Your task to perform on an android device: Go to sound settings Image 0: 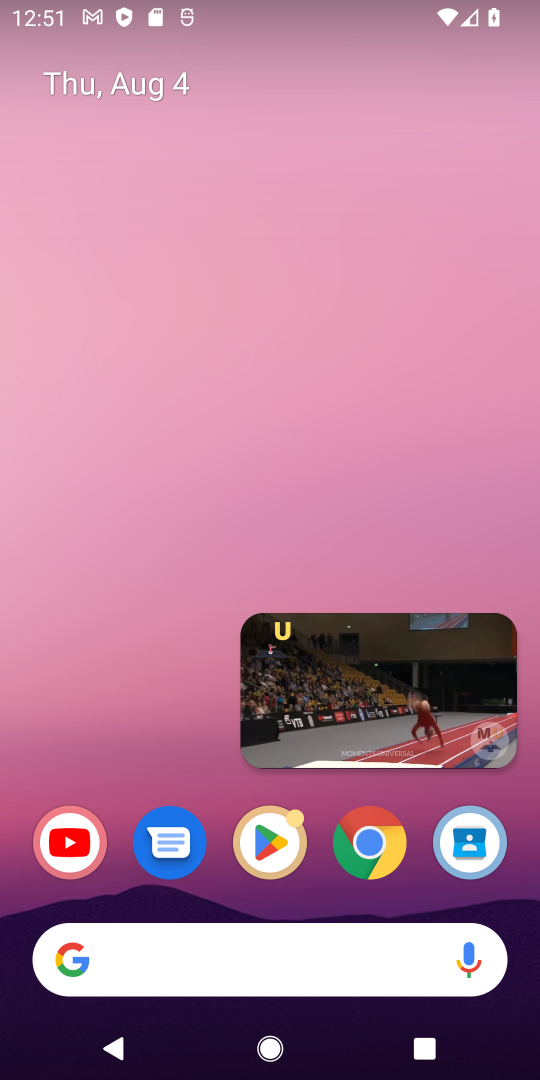
Step 0: drag from (89, 720) to (67, 292)
Your task to perform on an android device: Go to sound settings Image 1: 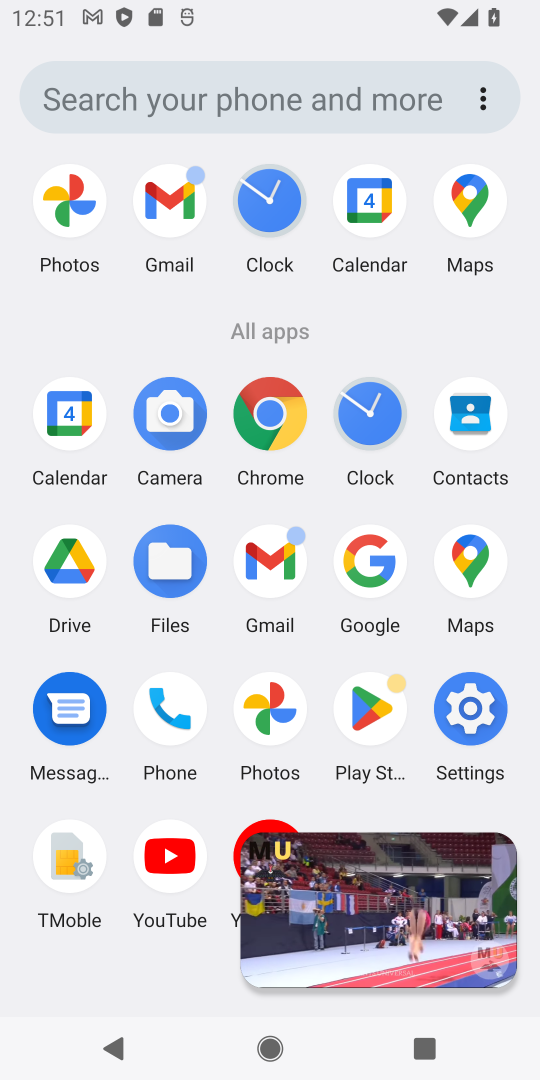
Step 1: click (474, 714)
Your task to perform on an android device: Go to sound settings Image 2: 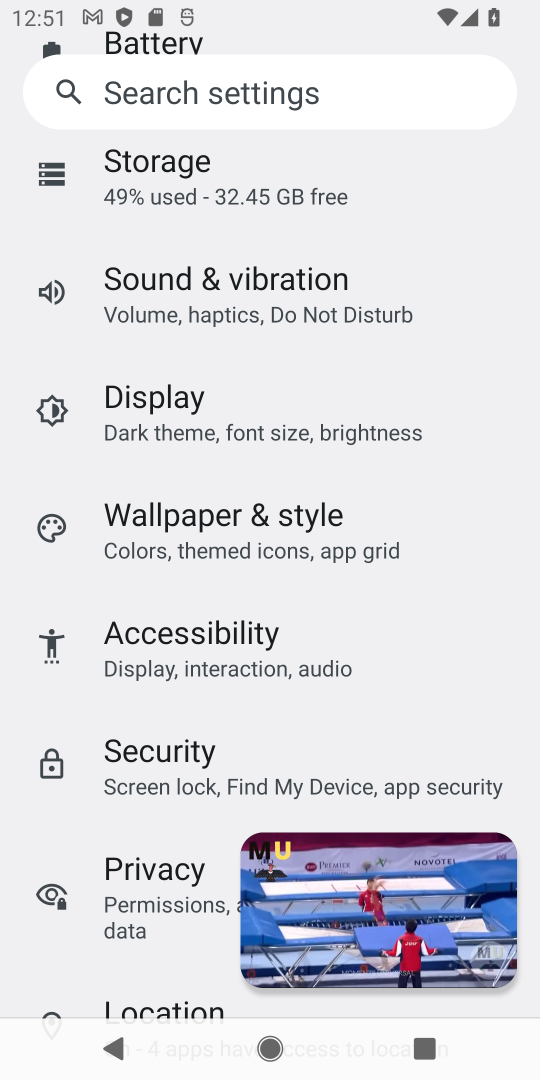
Step 2: click (164, 318)
Your task to perform on an android device: Go to sound settings Image 3: 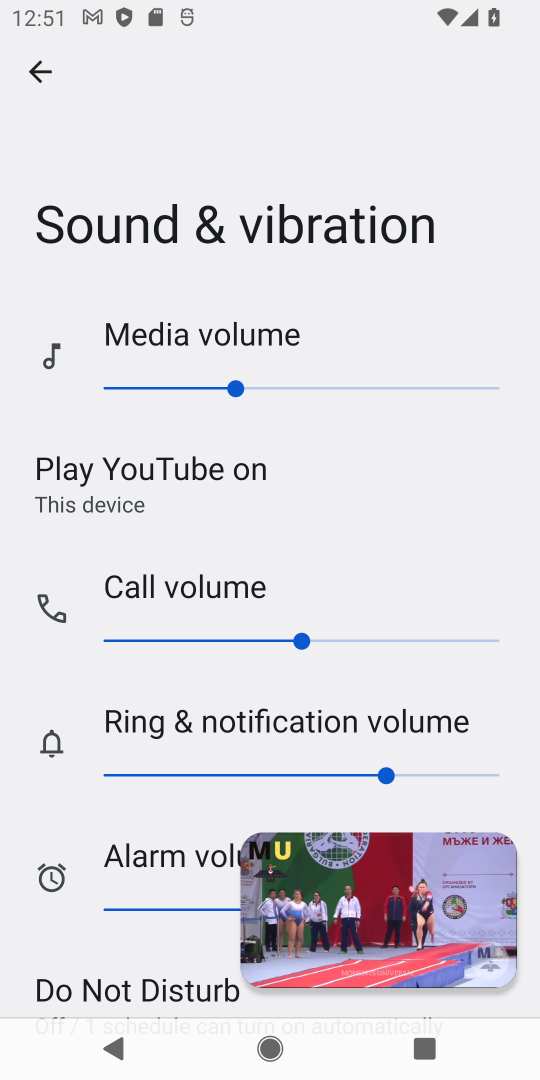
Step 3: task complete